Your task to perform on an android device: turn on the 12-hour format for clock Image 0: 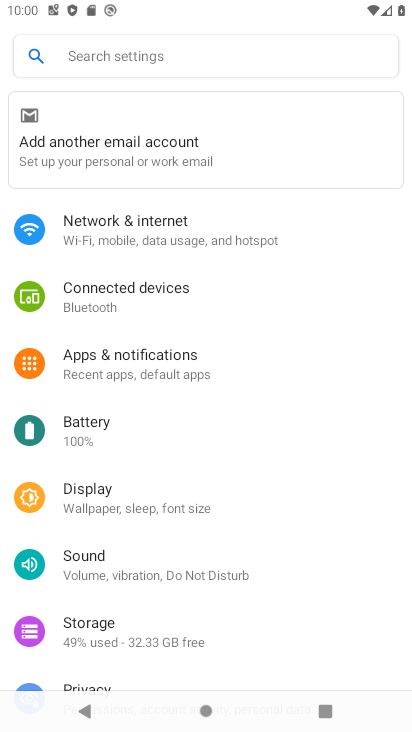
Step 0: press home button
Your task to perform on an android device: turn on the 12-hour format for clock Image 1: 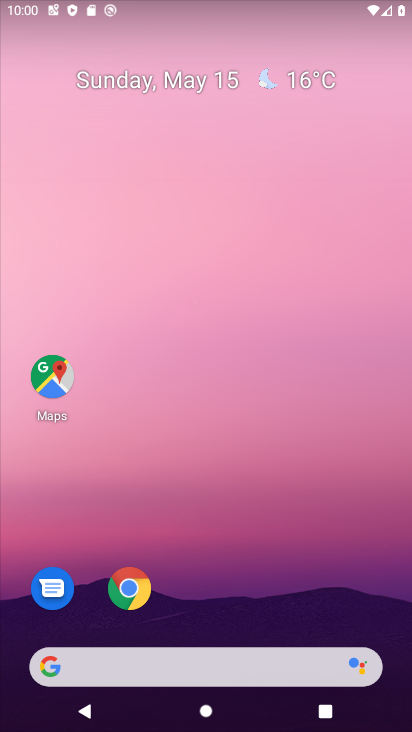
Step 1: drag from (206, 484) to (268, 53)
Your task to perform on an android device: turn on the 12-hour format for clock Image 2: 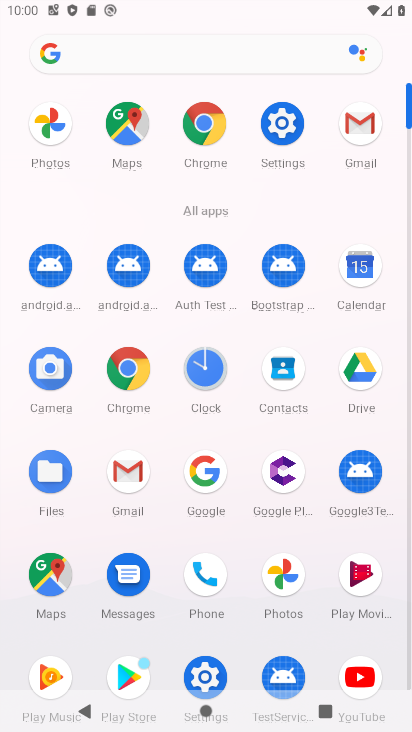
Step 2: click (203, 374)
Your task to perform on an android device: turn on the 12-hour format for clock Image 3: 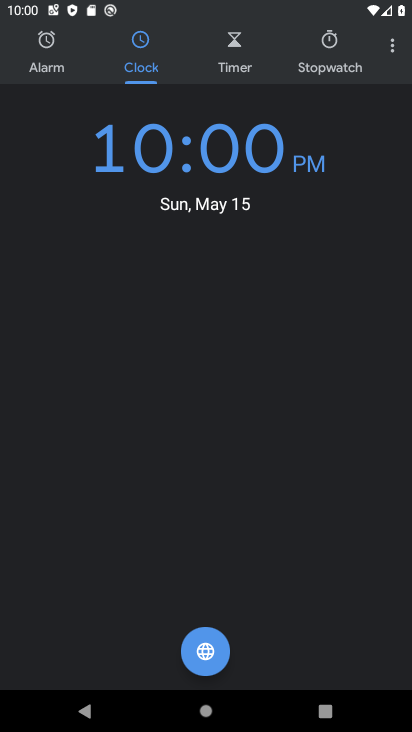
Step 3: click (397, 44)
Your task to perform on an android device: turn on the 12-hour format for clock Image 4: 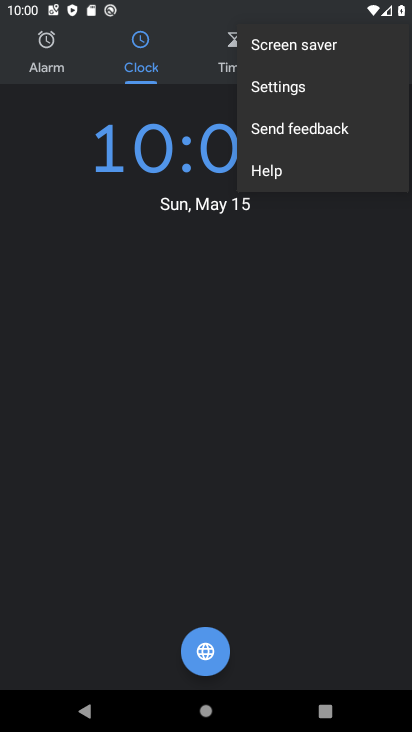
Step 4: click (316, 94)
Your task to perform on an android device: turn on the 12-hour format for clock Image 5: 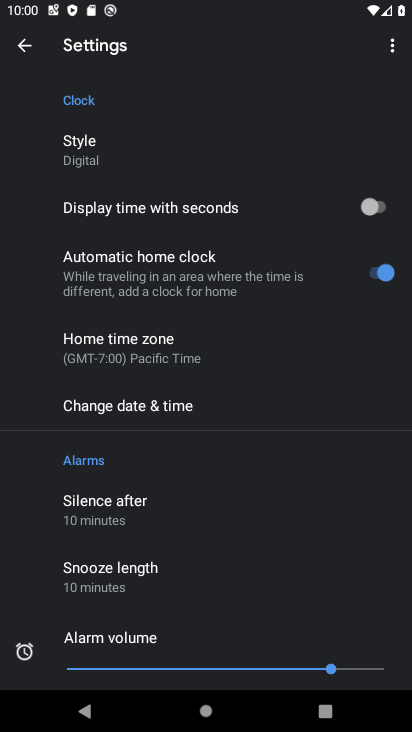
Step 5: click (154, 405)
Your task to perform on an android device: turn on the 12-hour format for clock Image 6: 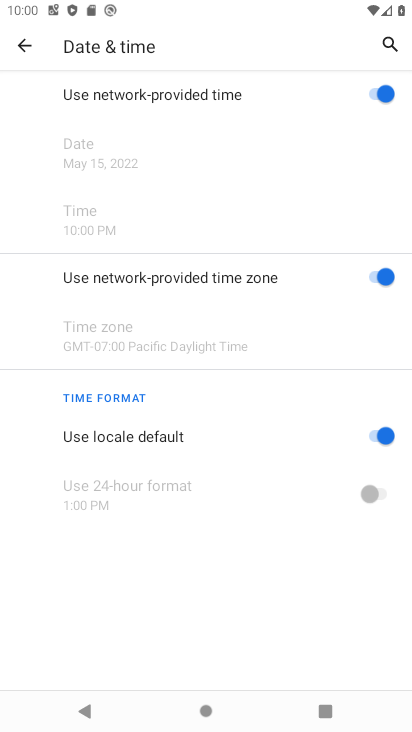
Step 6: task complete